Your task to perform on an android device: What's the weather? Image 0: 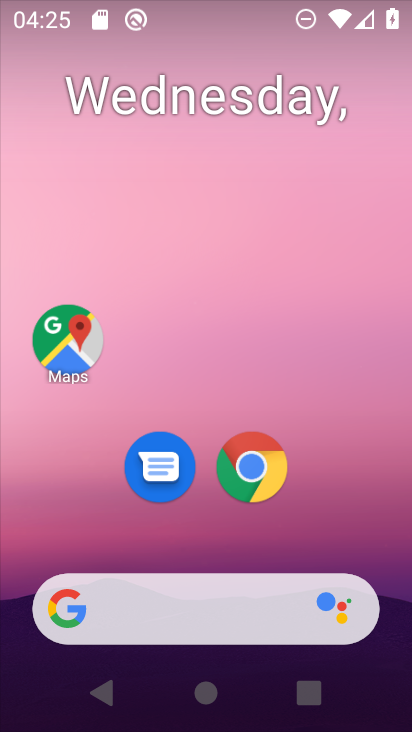
Step 0: drag from (6, 130) to (403, 334)
Your task to perform on an android device: What's the weather? Image 1: 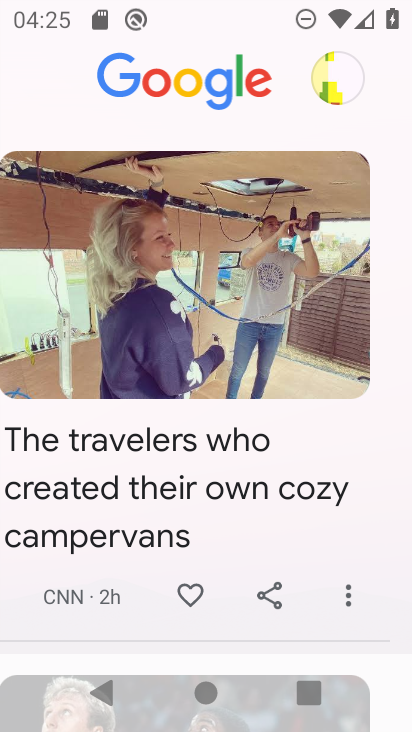
Step 1: drag from (90, 206) to (281, 256)
Your task to perform on an android device: What's the weather? Image 2: 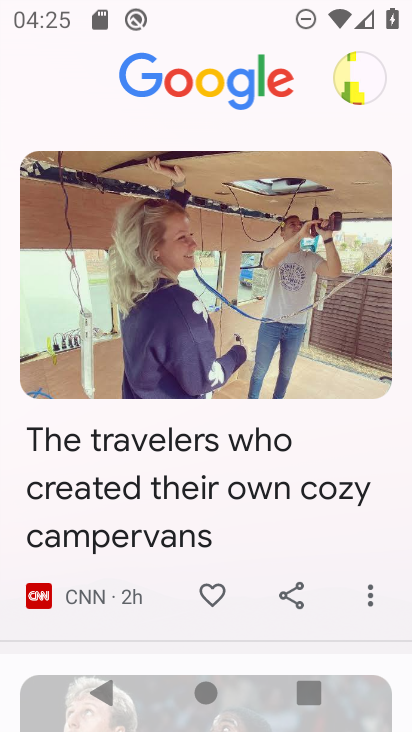
Step 2: drag from (222, 122) to (193, 469)
Your task to perform on an android device: What's the weather? Image 3: 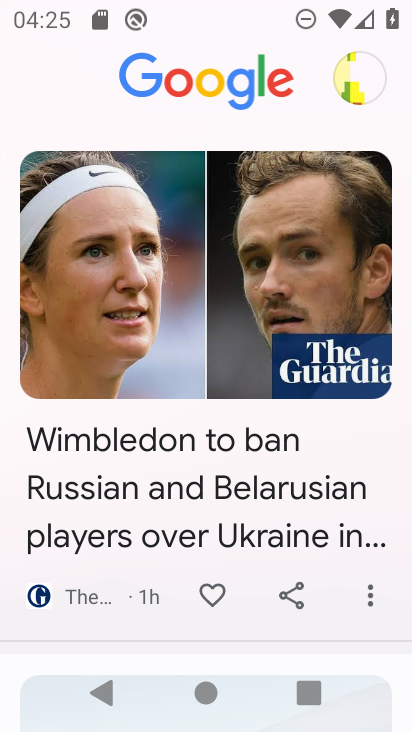
Step 3: press back button
Your task to perform on an android device: What's the weather? Image 4: 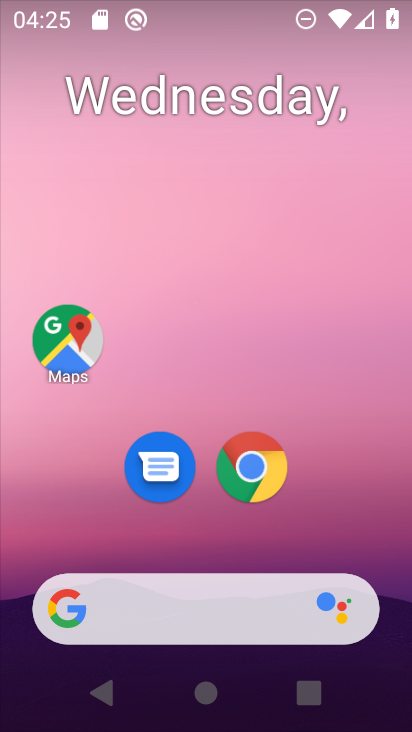
Step 4: click (174, 603)
Your task to perform on an android device: What's the weather? Image 5: 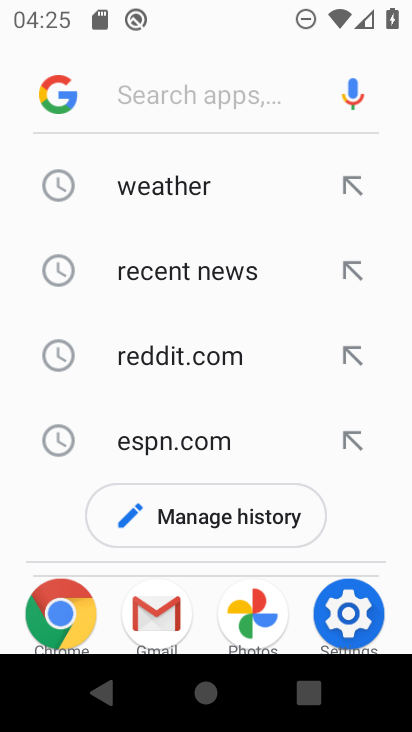
Step 5: click (163, 180)
Your task to perform on an android device: What's the weather? Image 6: 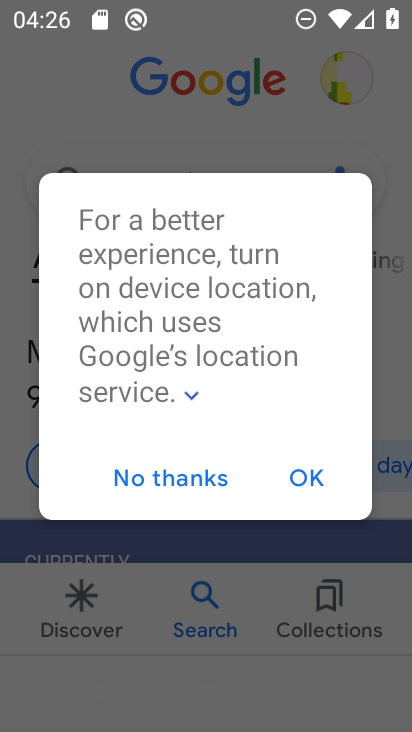
Step 6: click (307, 477)
Your task to perform on an android device: What's the weather? Image 7: 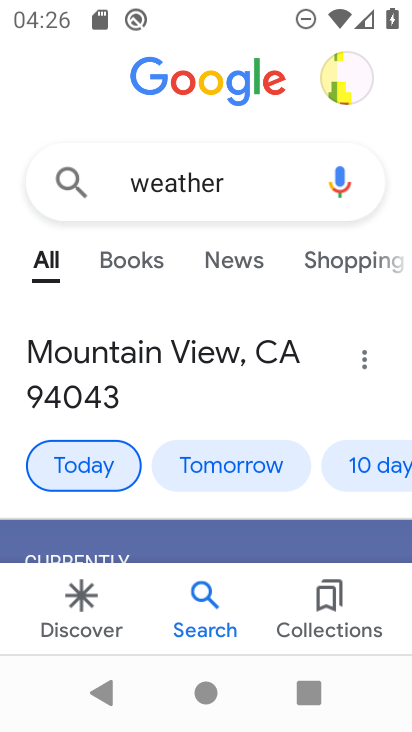
Step 7: task complete